Your task to perform on an android device: turn off sleep mode Image 0: 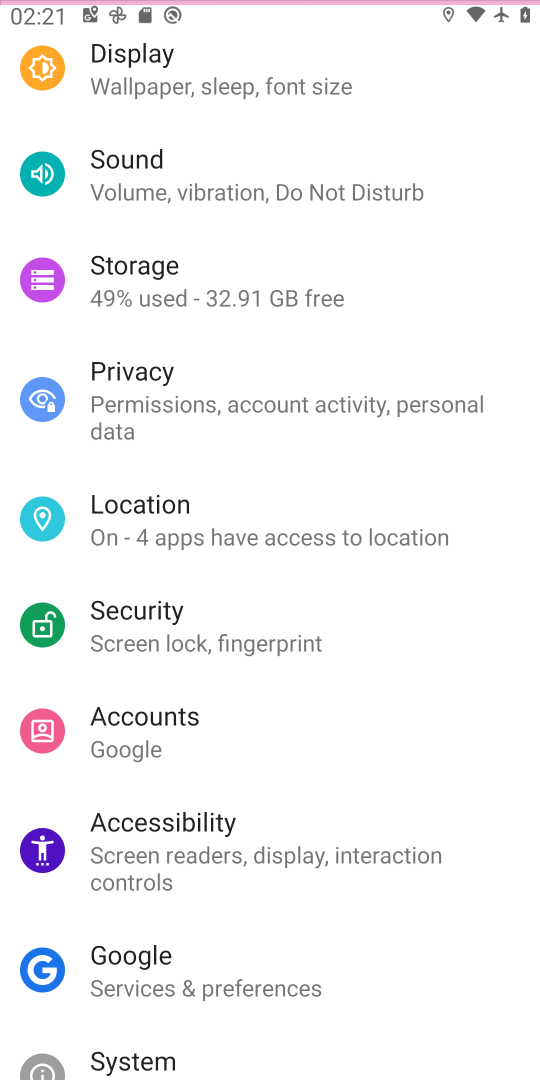
Step 0: press home button
Your task to perform on an android device: turn off sleep mode Image 1: 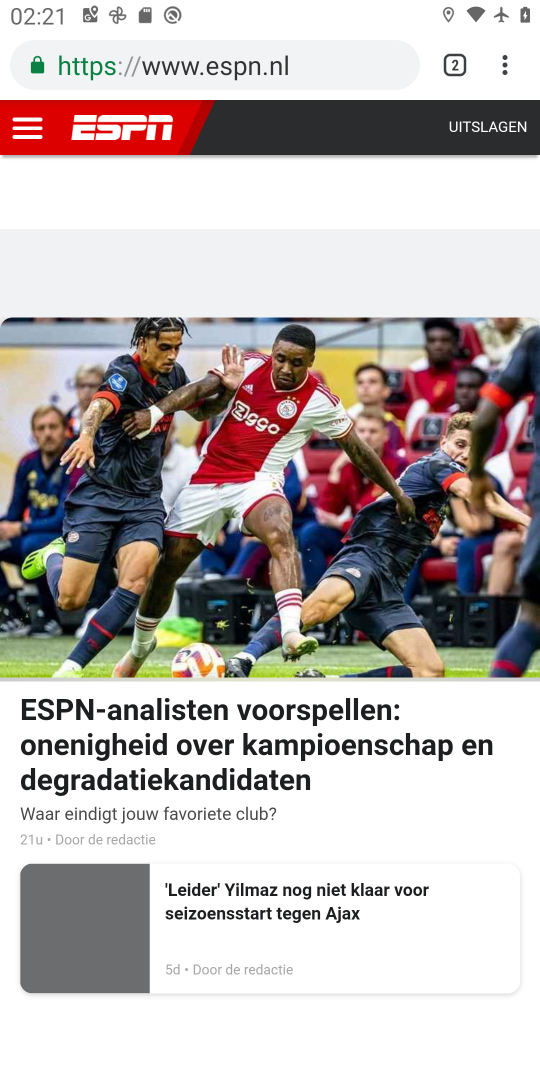
Step 1: press home button
Your task to perform on an android device: turn off sleep mode Image 2: 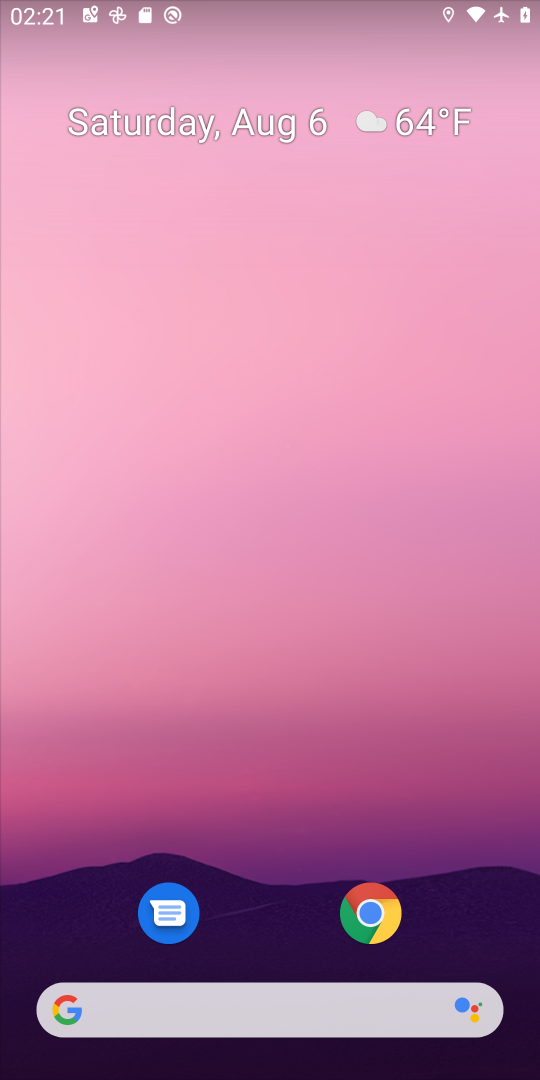
Step 2: drag from (456, 896) to (480, 280)
Your task to perform on an android device: turn off sleep mode Image 3: 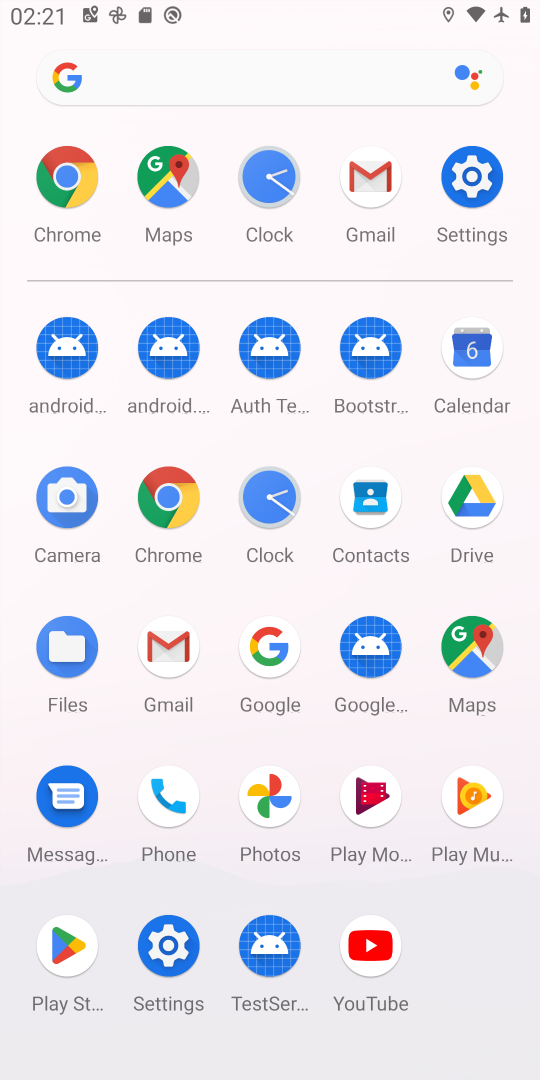
Step 3: click (480, 186)
Your task to perform on an android device: turn off sleep mode Image 4: 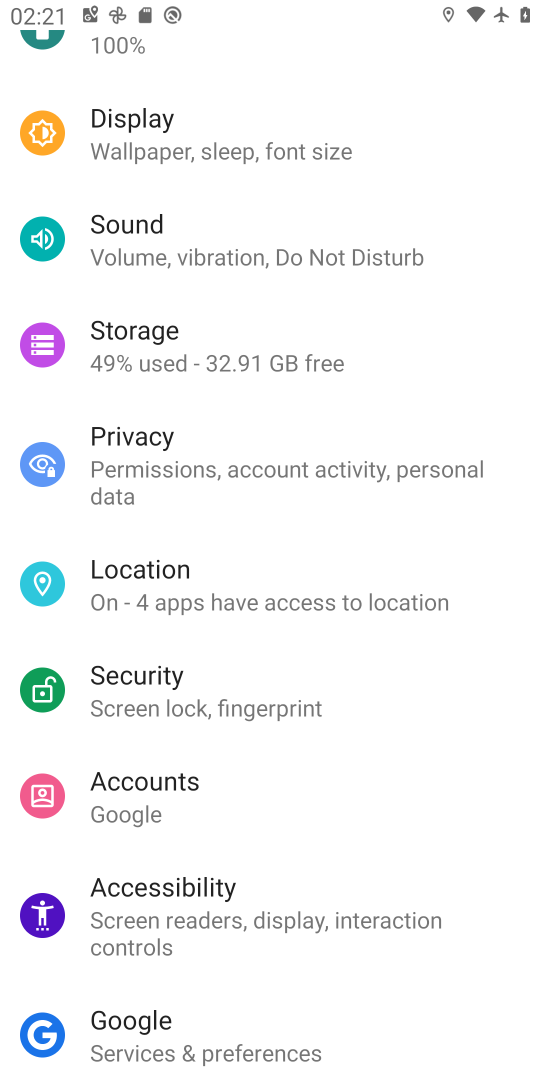
Step 4: drag from (476, 335) to (485, 485)
Your task to perform on an android device: turn off sleep mode Image 5: 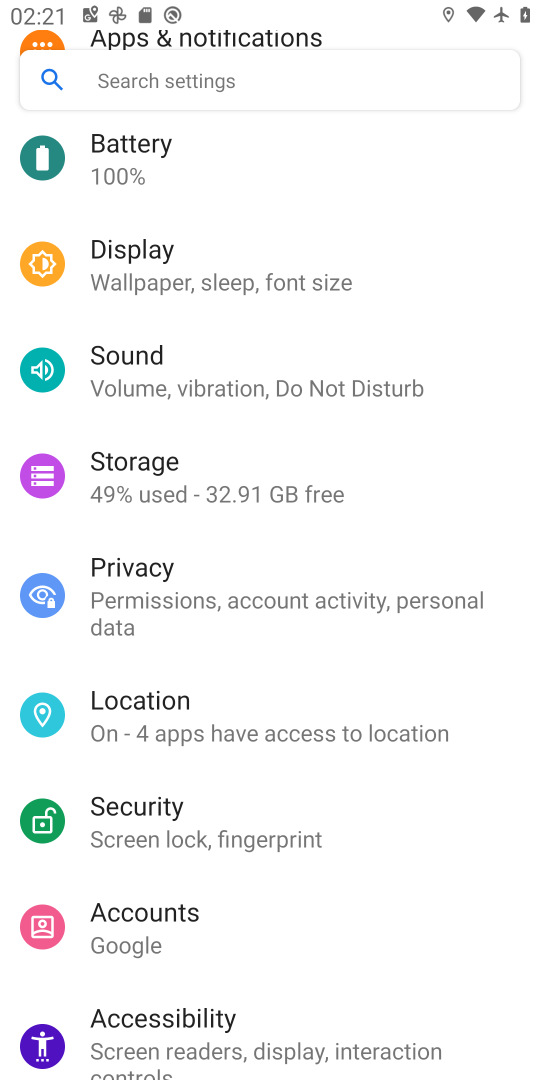
Step 5: drag from (485, 260) to (488, 445)
Your task to perform on an android device: turn off sleep mode Image 6: 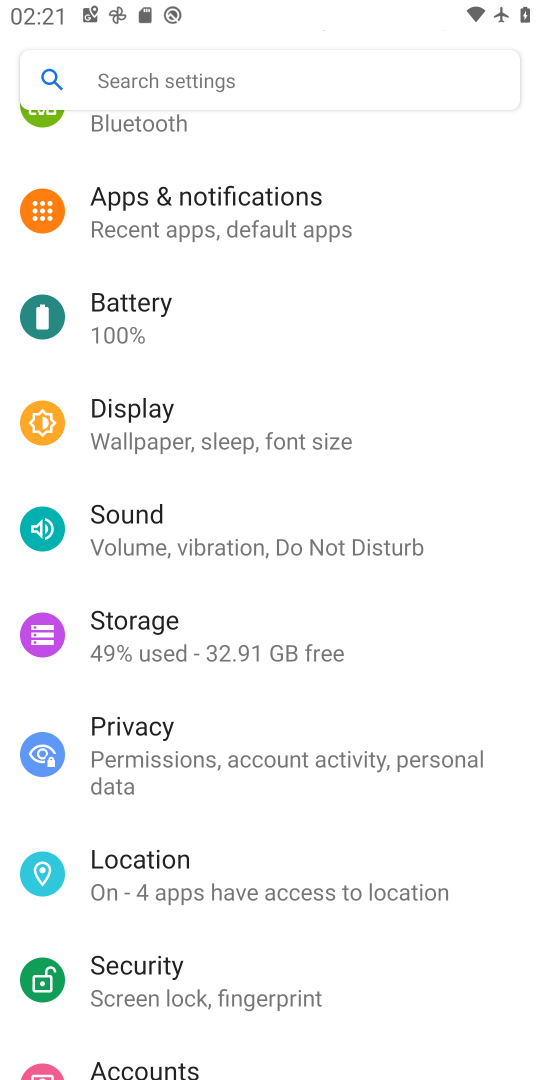
Step 6: drag from (465, 217) to (464, 444)
Your task to perform on an android device: turn off sleep mode Image 7: 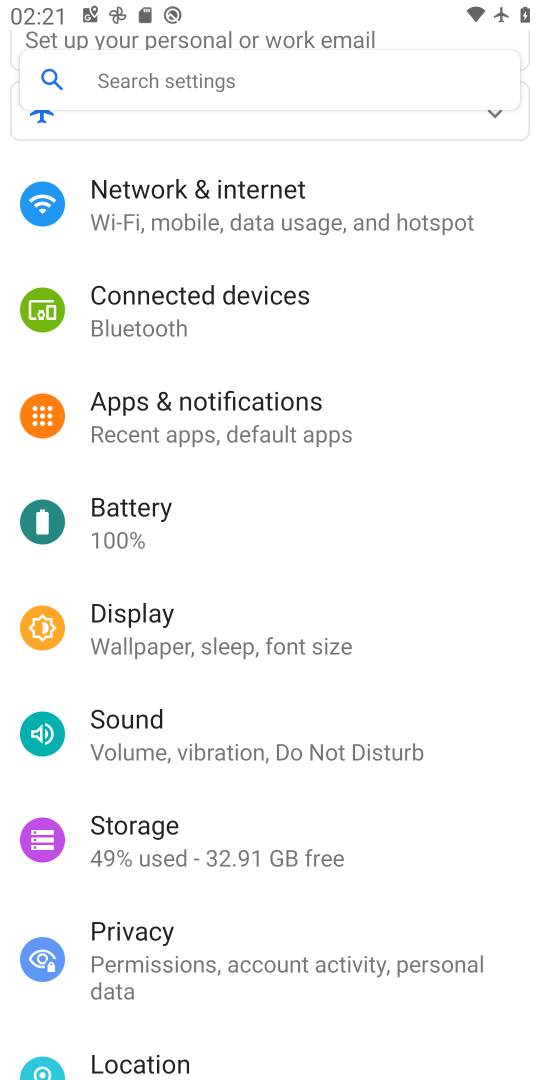
Step 7: drag from (486, 186) to (457, 599)
Your task to perform on an android device: turn off sleep mode Image 8: 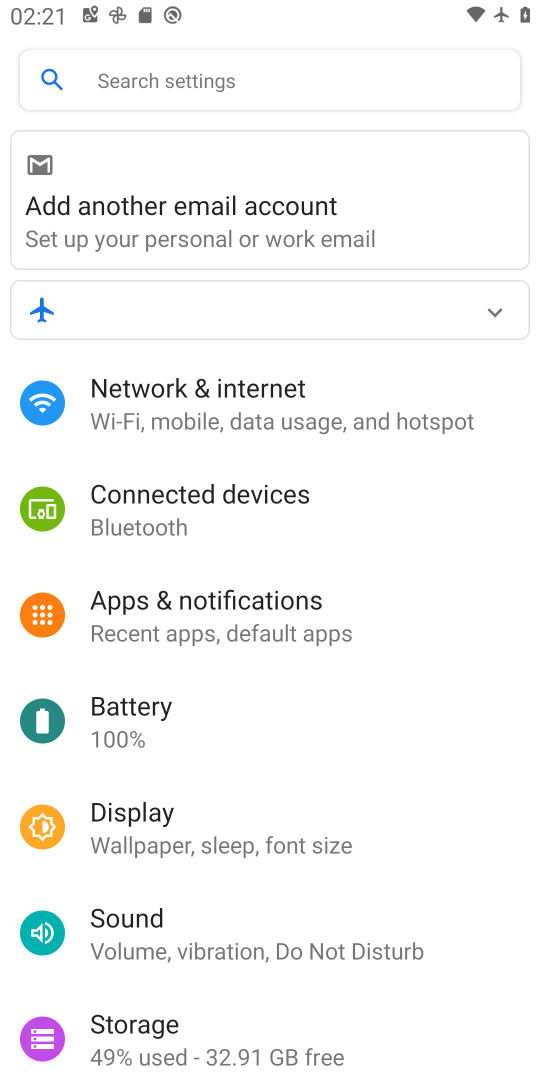
Step 8: click (182, 835)
Your task to perform on an android device: turn off sleep mode Image 9: 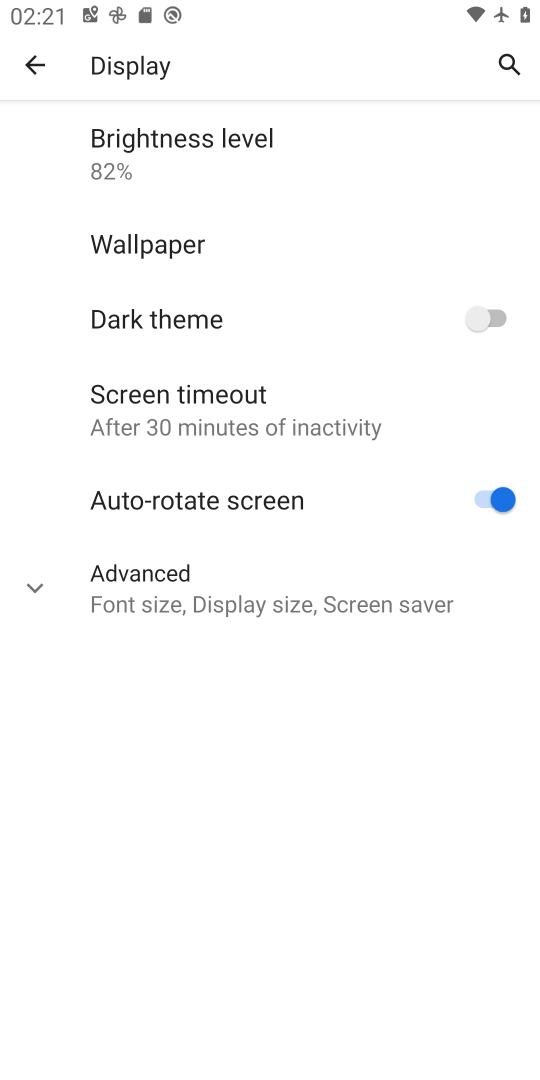
Step 9: click (281, 595)
Your task to perform on an android device: turn off sleep mode Image 10: 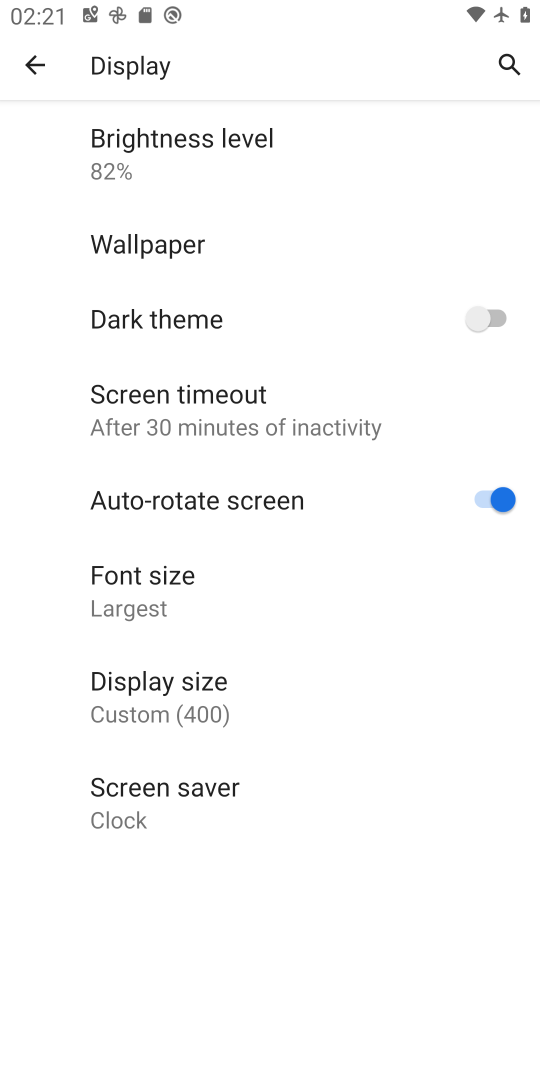
Step 10: task complete